Your task to perform on an android device: When is my next meeting? Image 0: 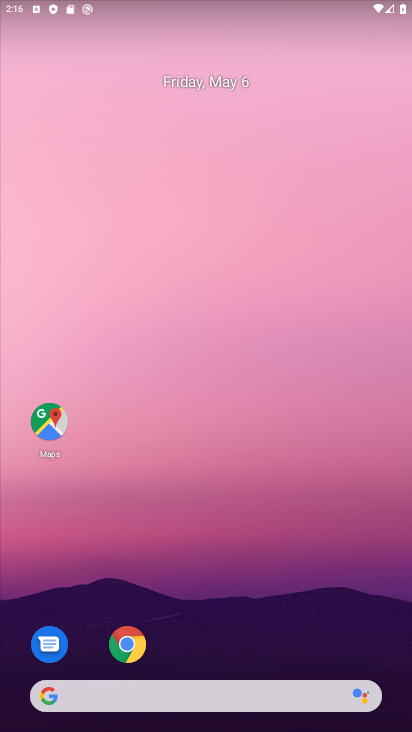
Step 0: drag from (209, 723) to (199, 397)
Your task to perform on an android device: When is my next meeting? Image 1: 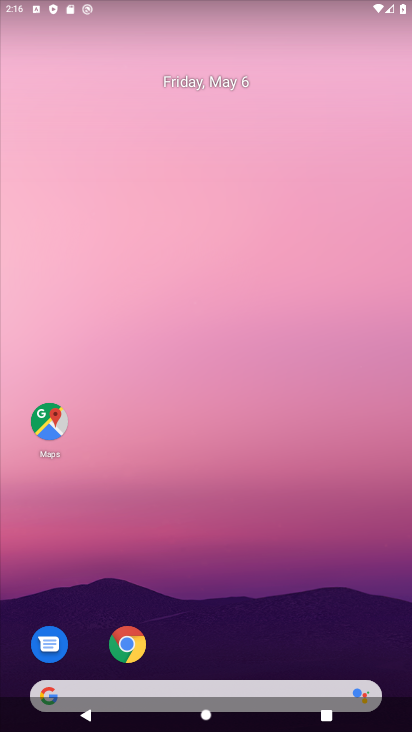
Step 1: drag from (137, 723) to (170, 201)
Your task to perform on an android device: When is my next meeting? Image 2: 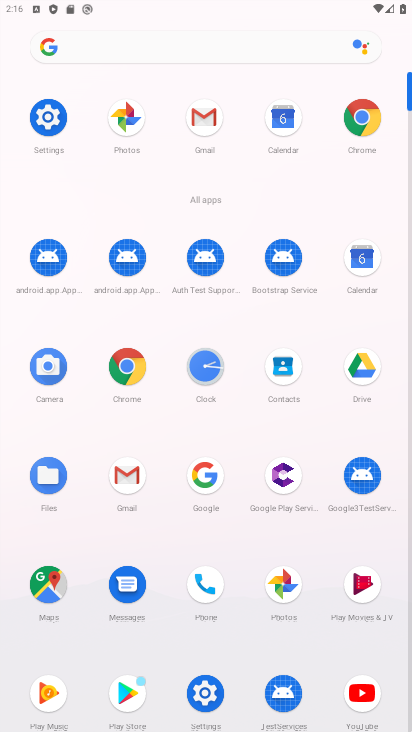
Step 2: click (360, 271)
Your task to perform on an android device: When is my next meeting? Image 3: 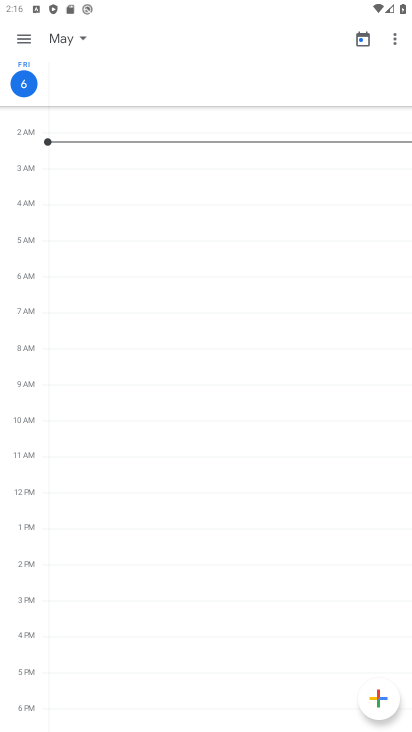
Step 3: click (23, 44)
Your task to perform on an android device: When is my next meeting? Image 4: 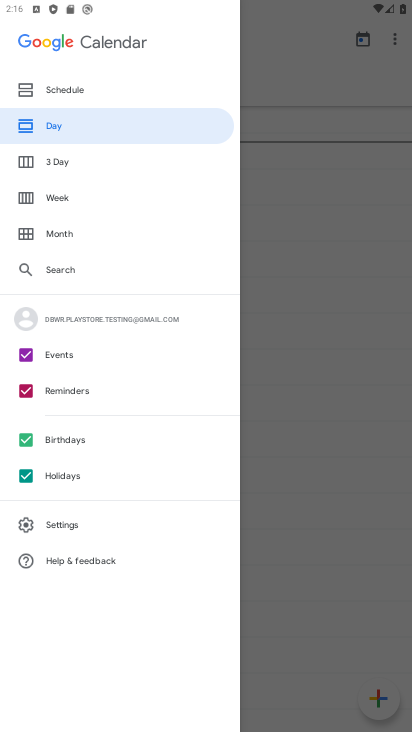
Step 4: click (268, 319)
Your task to perform on an android device: When is my next meeting? Image 5: 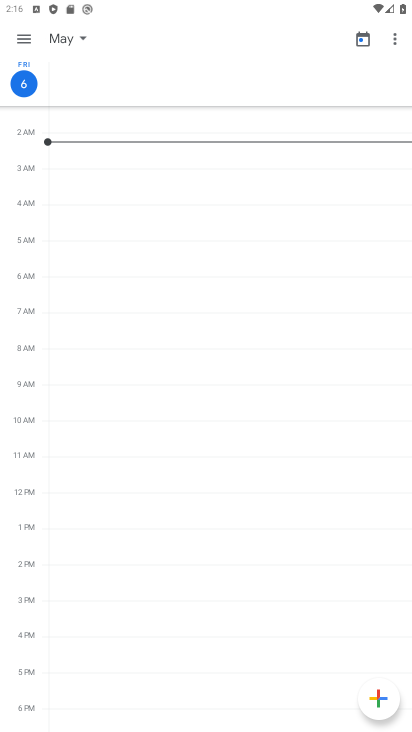
Step 5: task complete